Your task to perform on an android device: turn off location history Image 0: 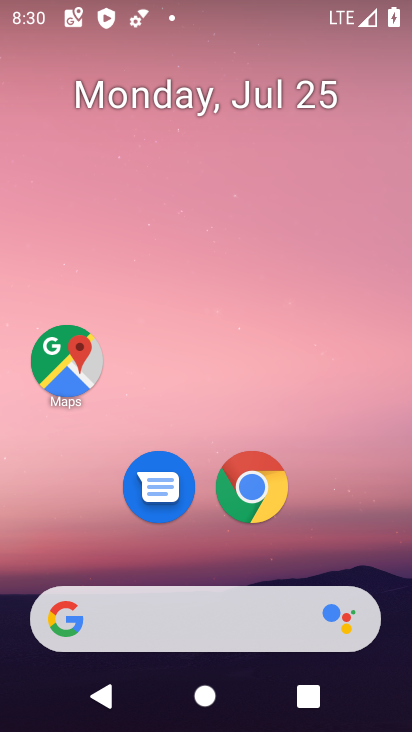
Step 0: drag from (122, 551) to (250, 41)
Your task to perform on an android device: turn off location history Image 1: 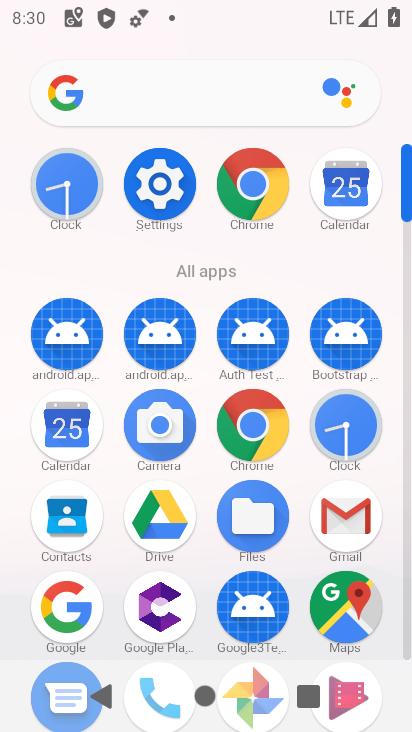
Step 1: click (163, 186)
Your task to perform on an android device: turn off location history Image 2: 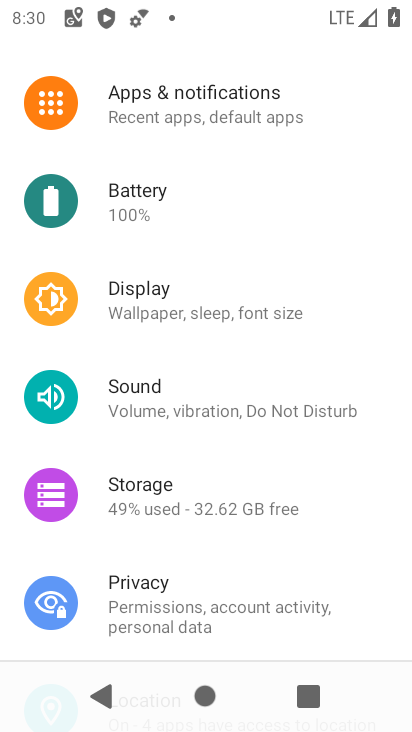
Step 2: drag from (263, 215) to (347, 39)
Your task to perform on an android device: turn off location history Image 3: 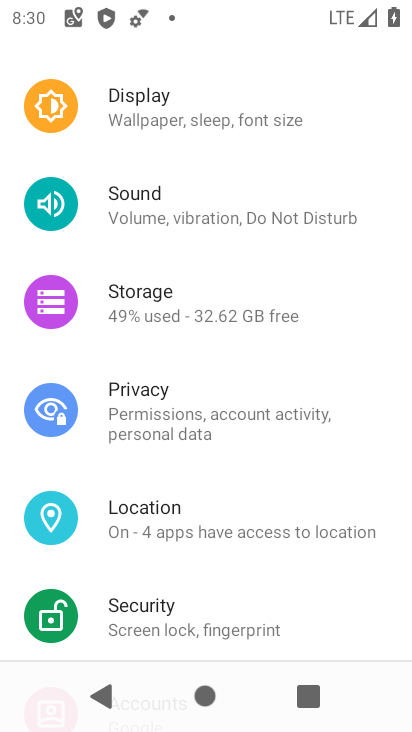
Step 3: click (173, 521)
Your task to perform on an android device: turn off location history Image 4: 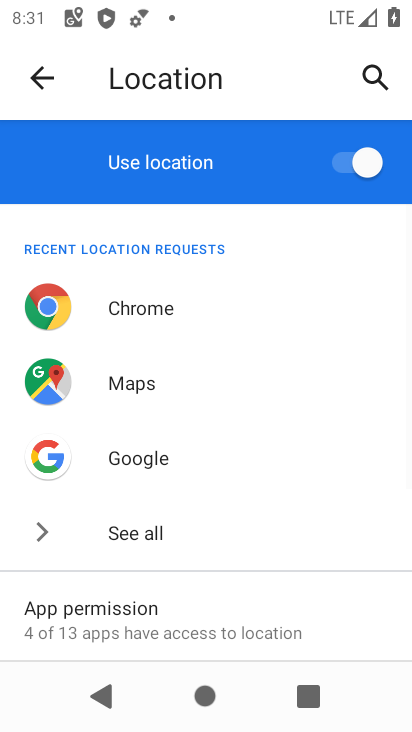
Step 4: drag from (169, 584) to (303, 109)
Your task to perform on an android device: turn off location history Image 5: 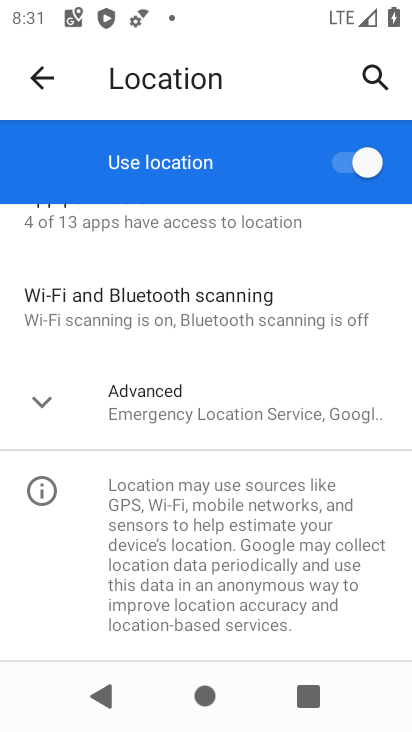
Step 5: click (185, 408)
Your task to perform on an android device: turn off location history Image 6: 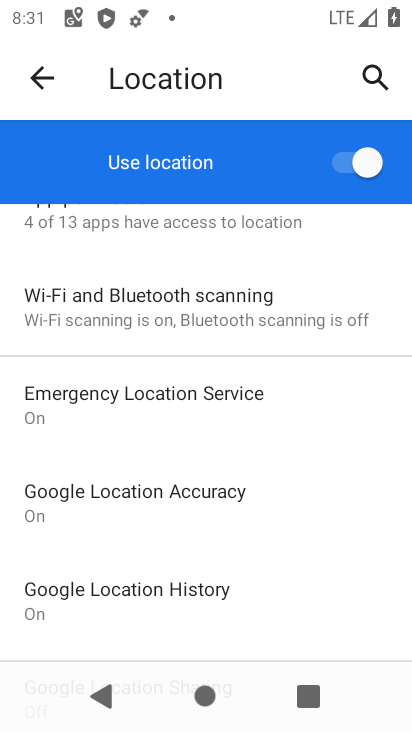
Step 6: click (158, 593)
Your task to perform on an android device: turn off location history Image 7: 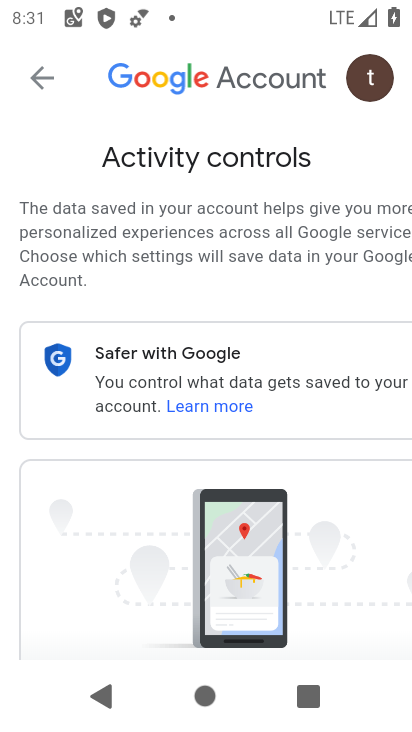
Step 7: drag from (216, 562) to (217, 145)
Your task to perform on an android device: turn off location history Image 8: 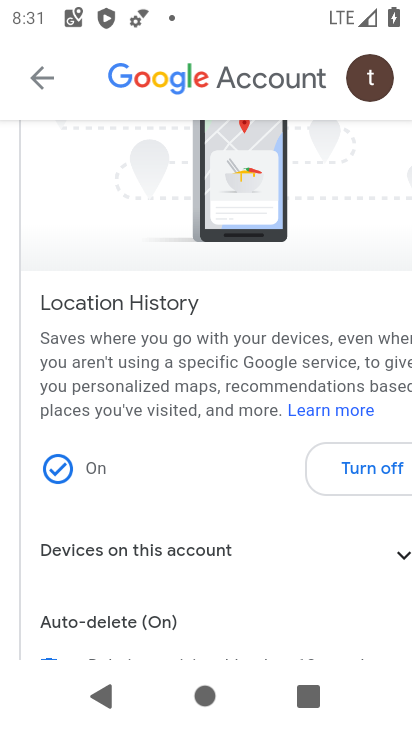
Step 8: click (342, 460)
Your task to perform on an android device: turn off location history Image 9: 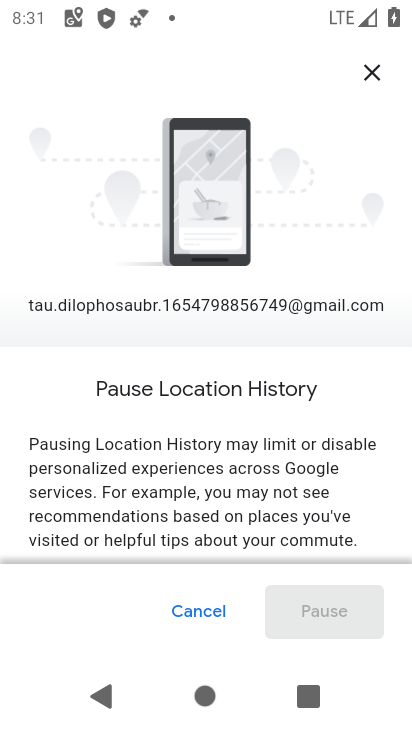
Step 9: drag from (243, 471) to (273, 84)
Your task to perform on an android device: turn off location history Image 10: 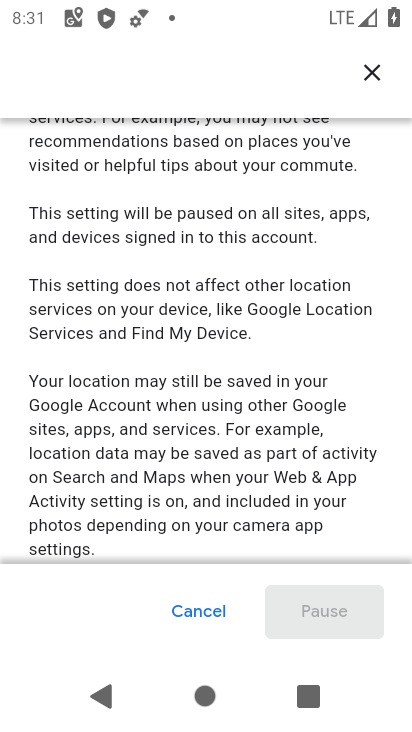
Step 10: drag from (207, 469) to (269, 15)
Your task to perform on an android device: turn off location history Image 11: 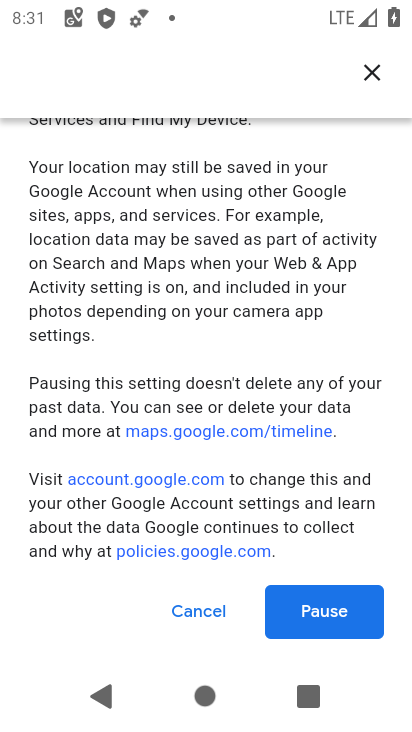
Step 11: click (317, 615)
Your task to perform on an android device: turn off location history Image 12: 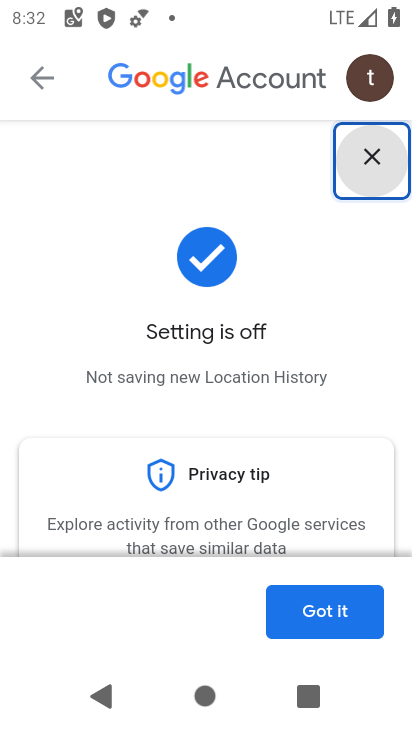
Step 12: click (303, 615)
Your task to perform on an android device: turn off location history Image 13: 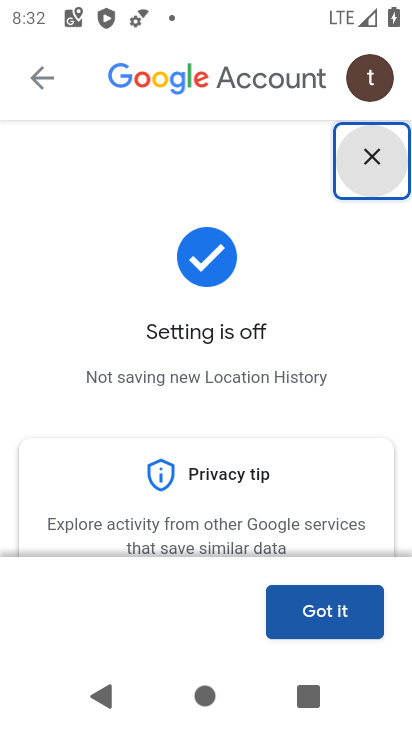
Step 13: task complete